Your task to perform on an android device: read, delete, or share a saved page in the chrome app Image 0: 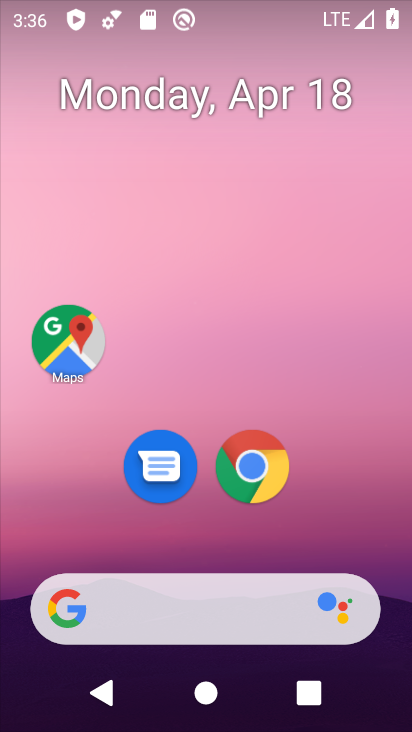
Step 0: click (269, 489)
Your task to perform on an android device: read, delete, or share a saved page in the chrome app Image 1: 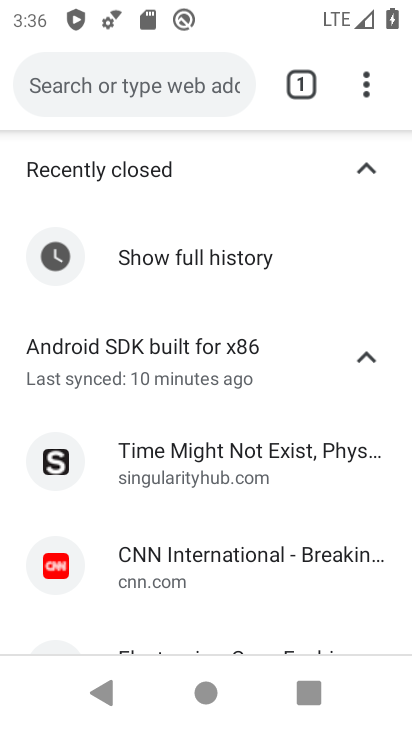
Step 1: click (368, 81)
Your task to perform on an android device: read, delete, or share a saved page in the chrome app Image 2: 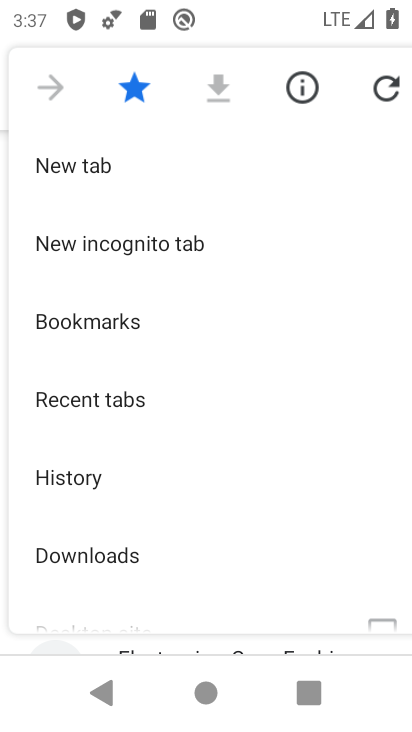
Step 2: click (118, 550)
Your task to perform on an android device: read, delete, or share a saved page in the chrome app Image 3: 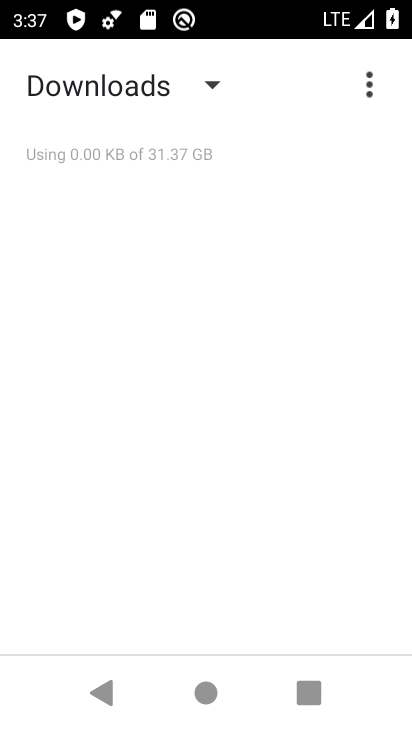
Step 3: task complete